Your task to perform on an android device: Add razer nari to the cart on amazon.com Image 0: 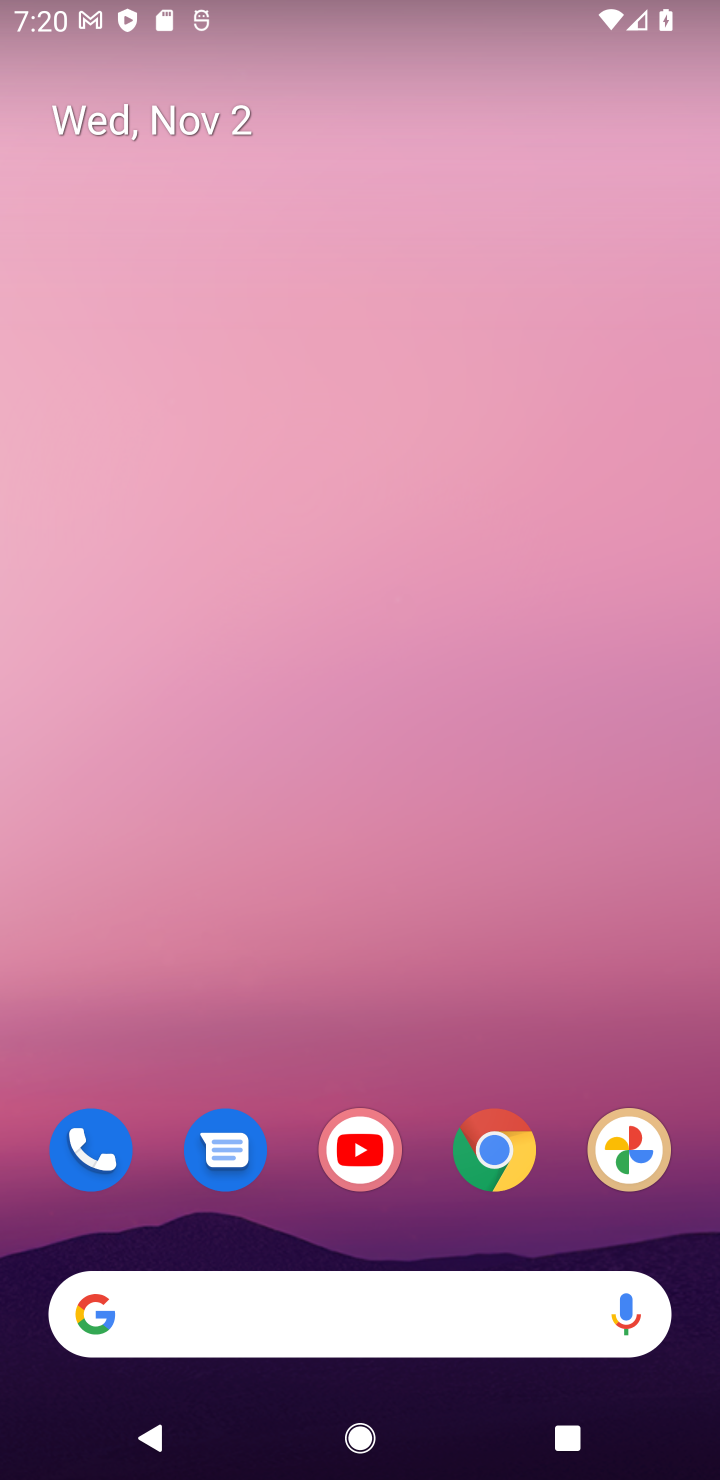
Step 0: click (482, 1160)
Your task to perform on an android device: Add razer nari to the cart on amazon.com Image 1: 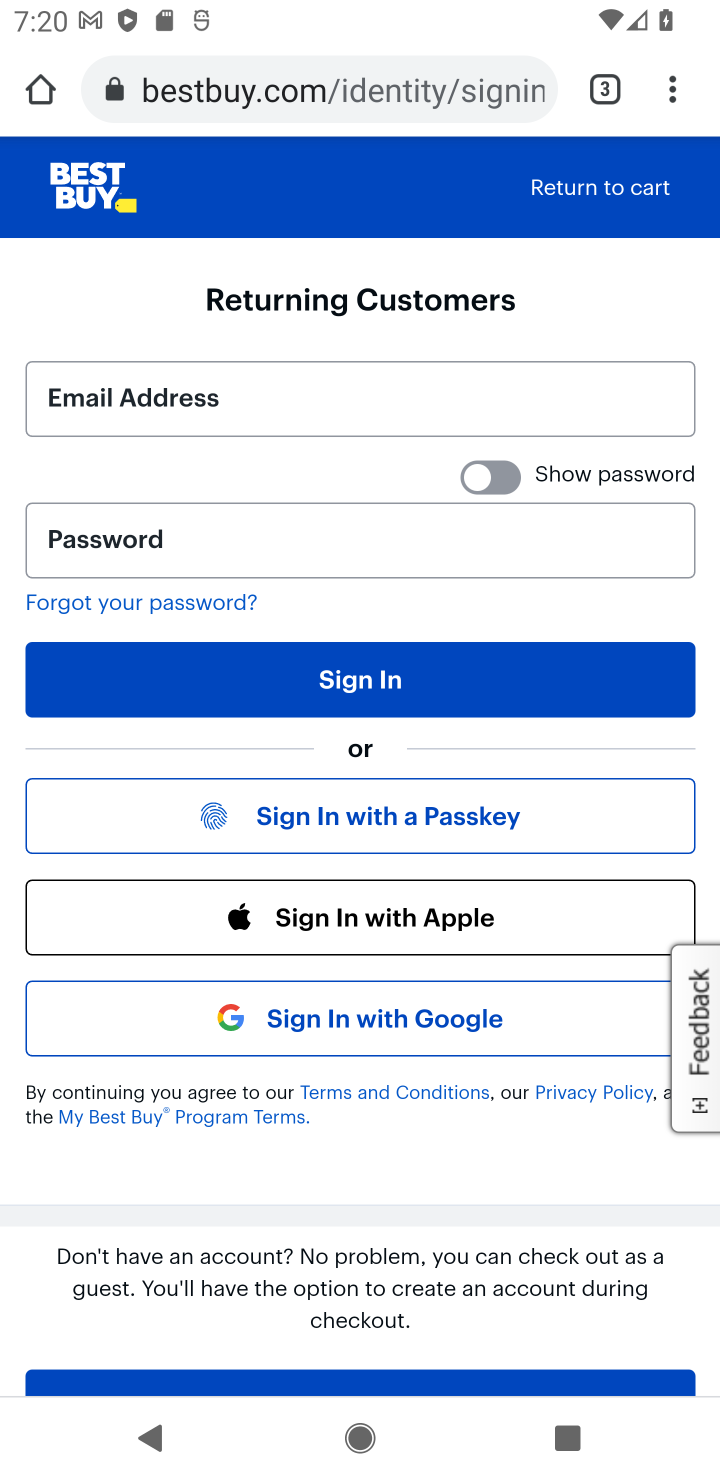
Step 1: click (603, 84)
Your task to perform on an android device: Add razer nari to the cart on amazon.com Image 2: 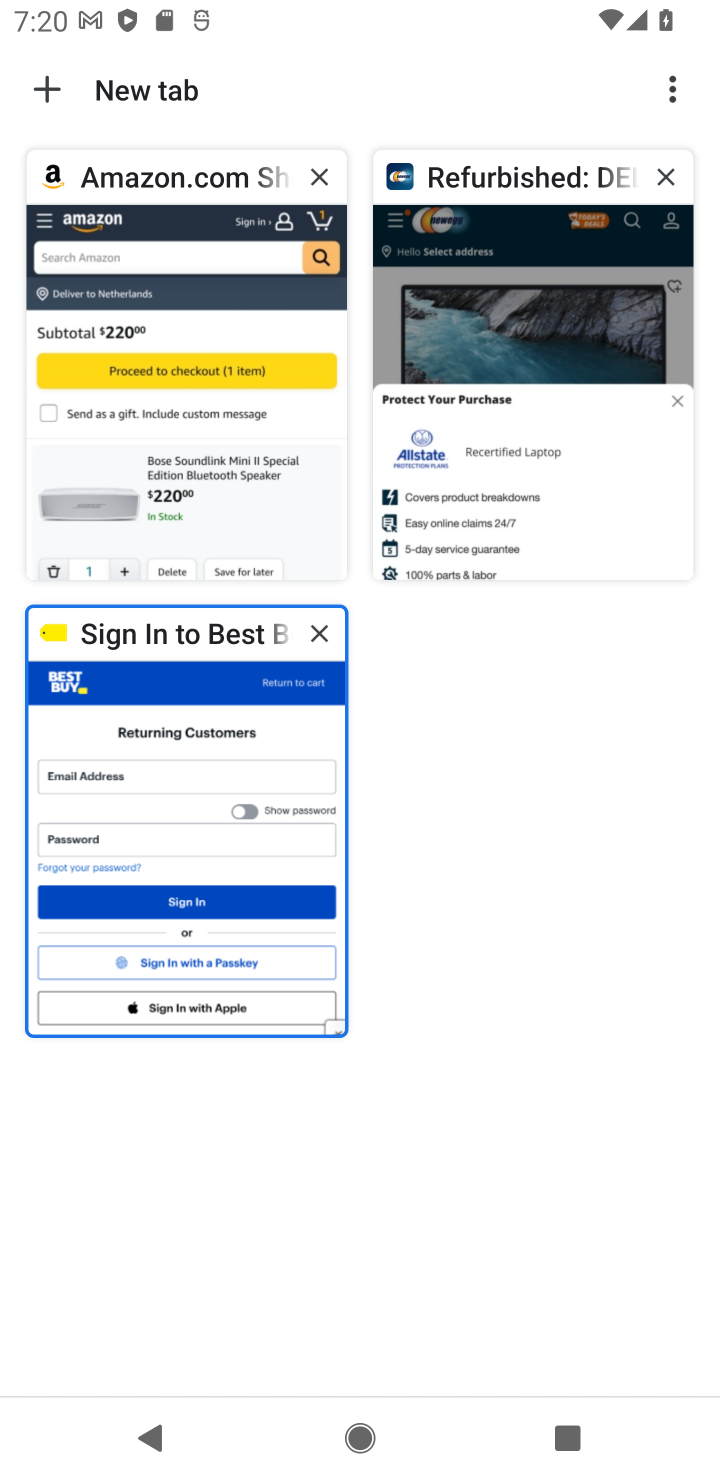
Step 2: click (162, 392)
Your task to perform on an android device: Add razer nari to the cart on amazon.com Image 3: 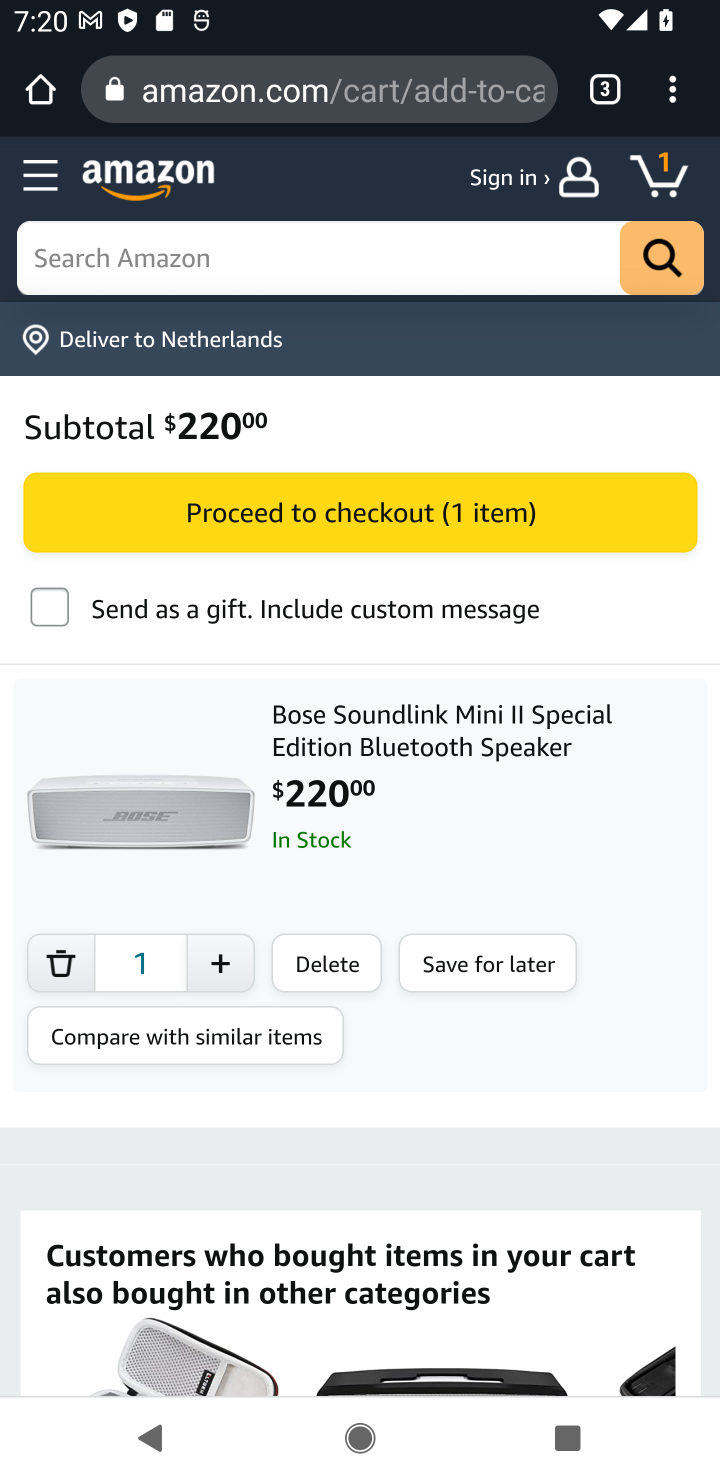
Step 3: click (283, 251)
Your task to perform on an android device: Add razer nari to the cart on amazon.com Image 4: 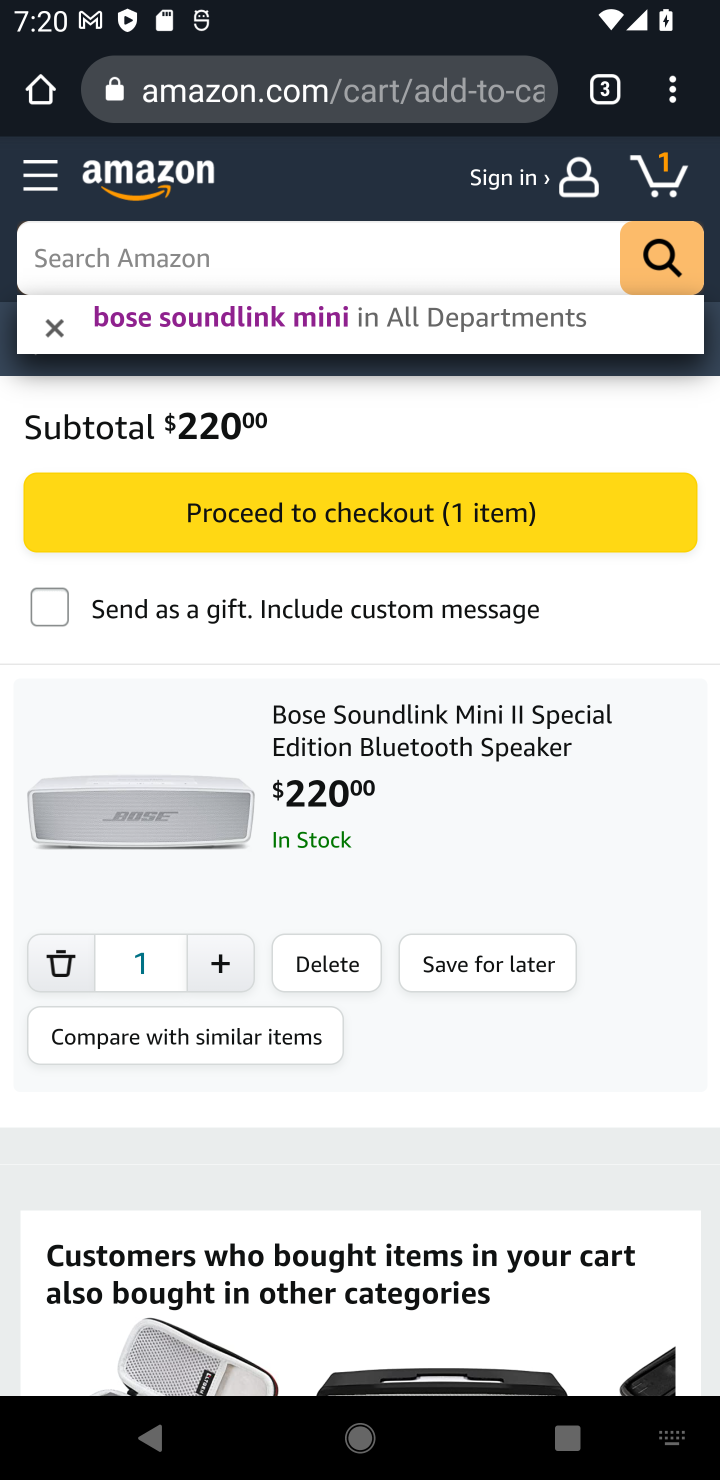
Step 4: type "razer nari "
Your task to perform on an android device: Add razer nari to the cart on amazon.com Image 5: 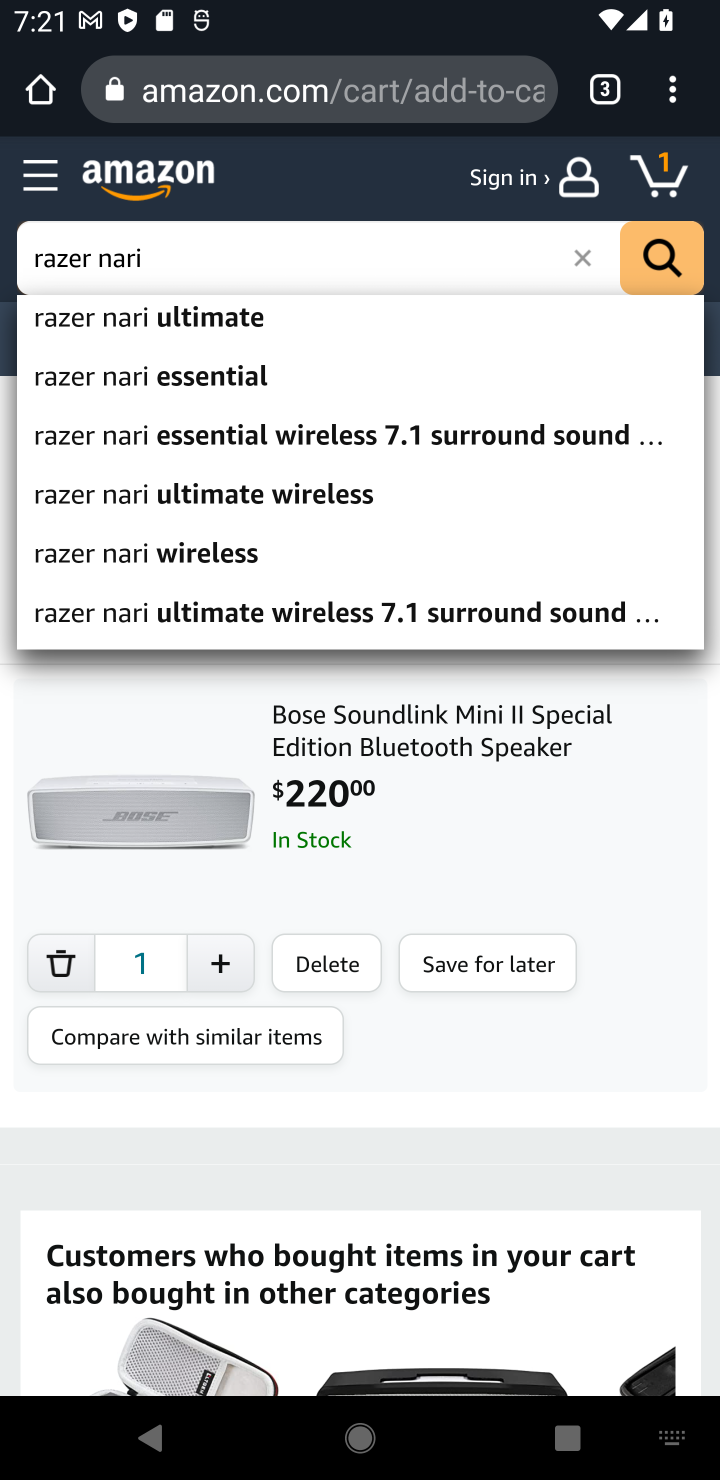
Step 5: click (213, 313)
Your task to perform on an android device: Add razer nari to the cart on amazon.com Image 6: 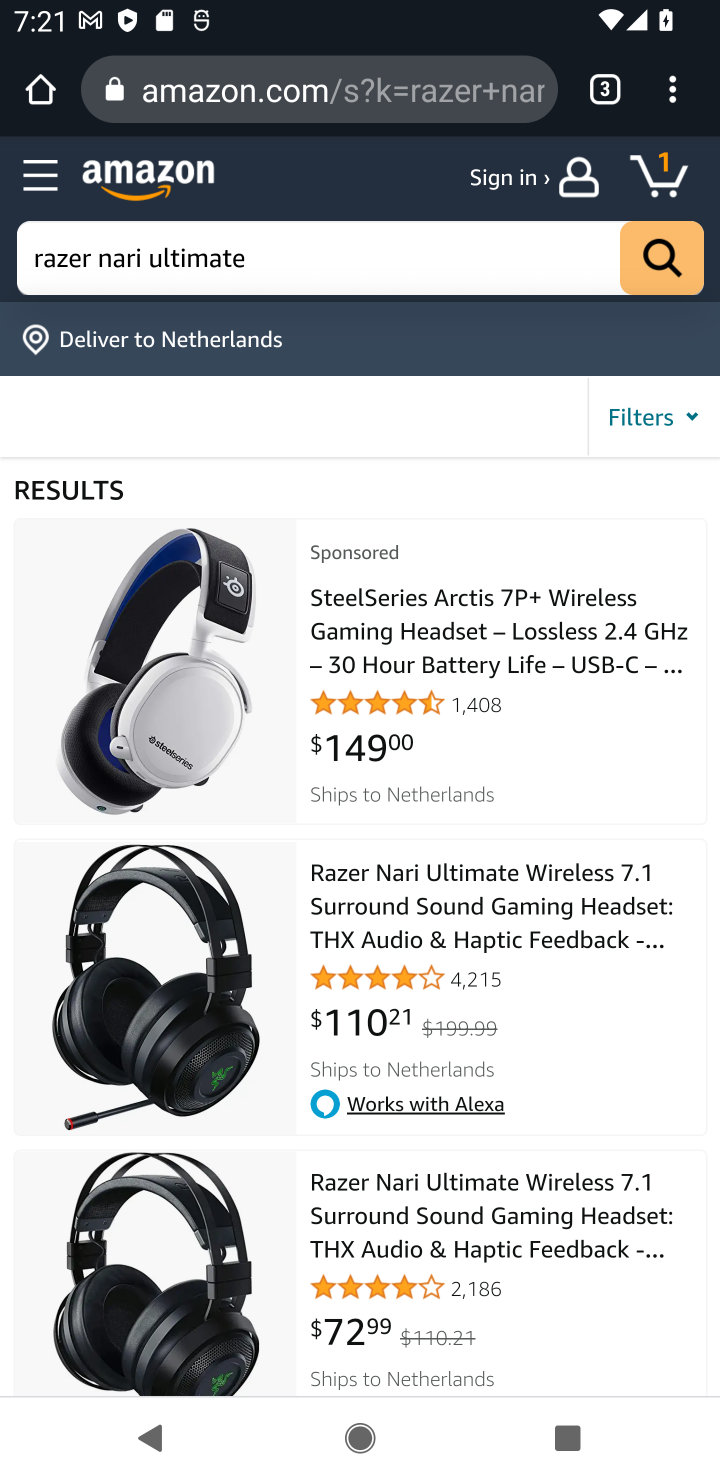
Step 6: click (554, 883)
Your task to perform on an android device: Add razer nari to the cart on amazon.com Image 7: 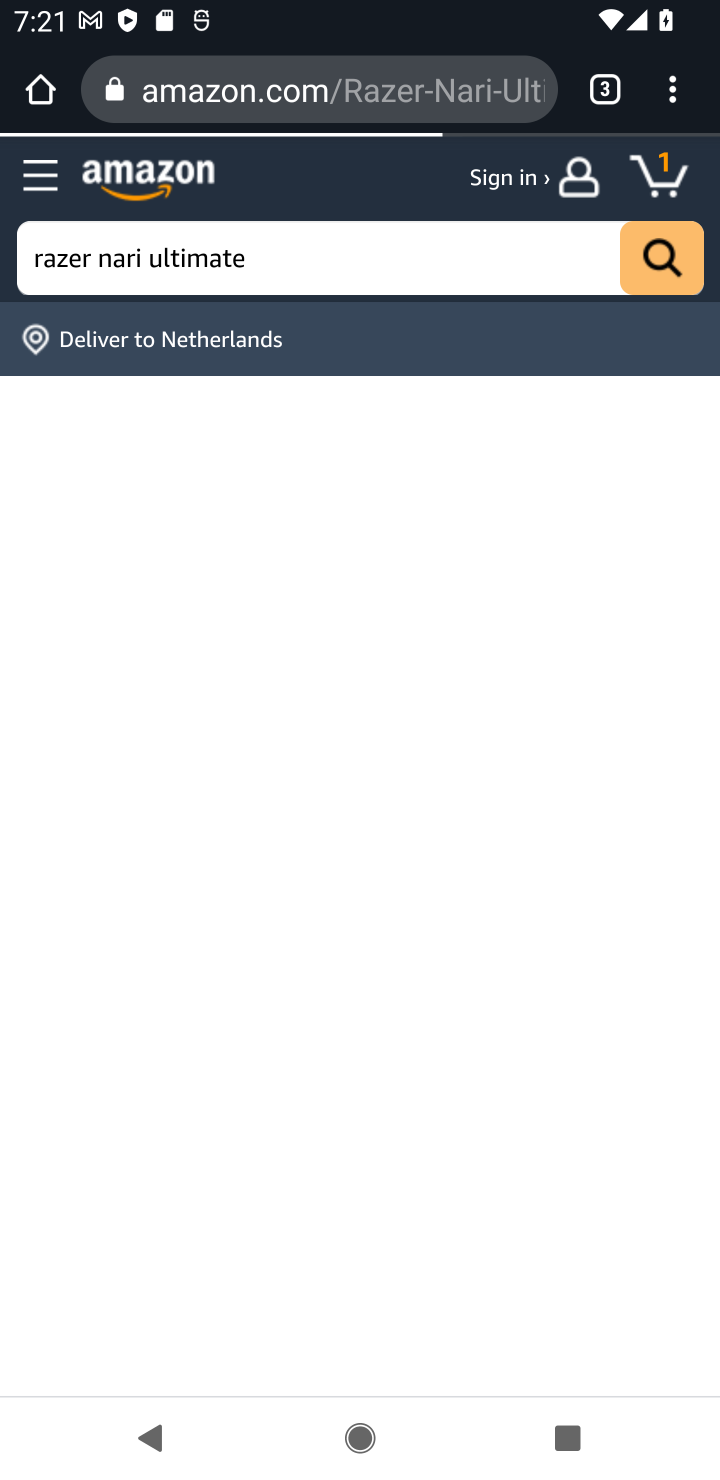
Step 7: click (554, 883)
Your task to perform on an android device: Add razer nari to the cart on amazon.com Image 8: 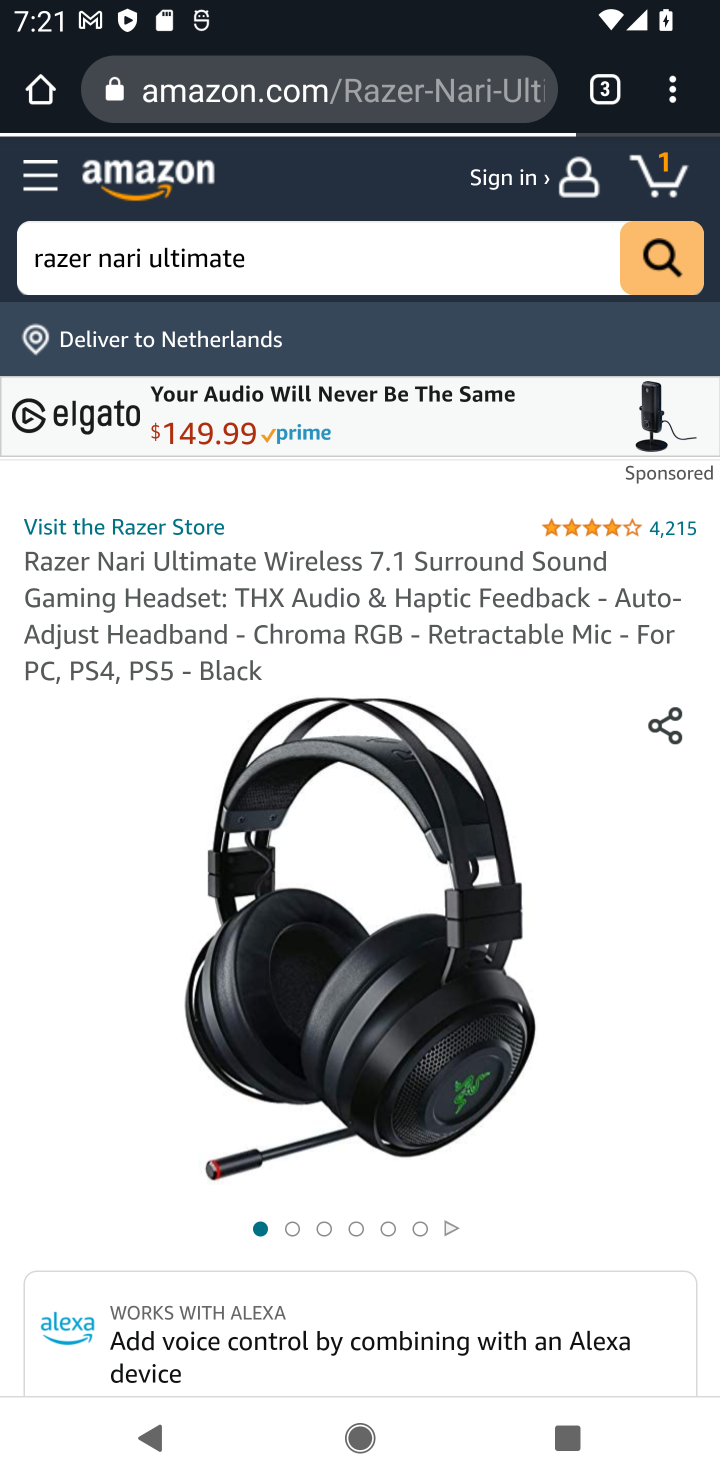
Step 8: drag from (269, 1132) to (442, 429)
Your task to perform on an android device: Add razer nari to the cart on amazon.com Image 9: 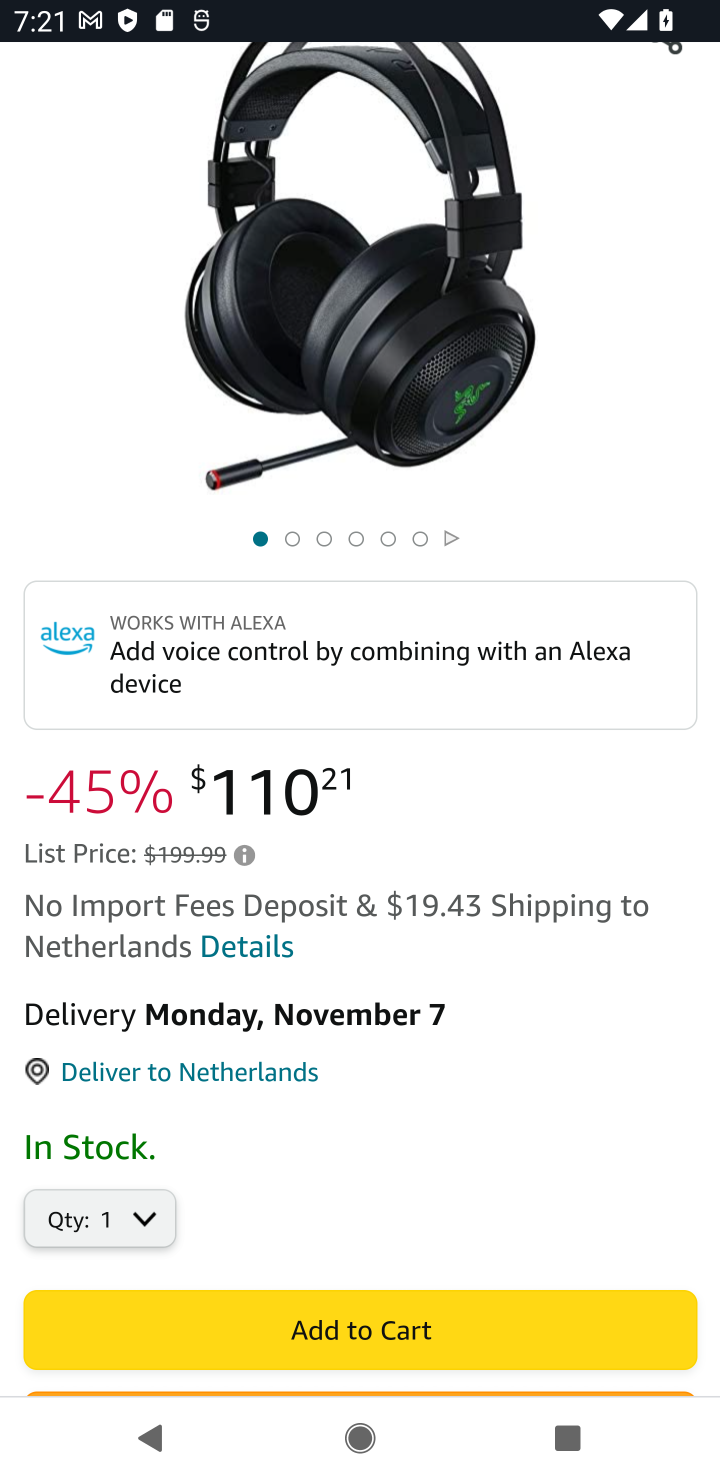
Step 9: click (419, 1326)
Your task to perform on an android device: Add razer nari to the cart on amazon.com Image 10: 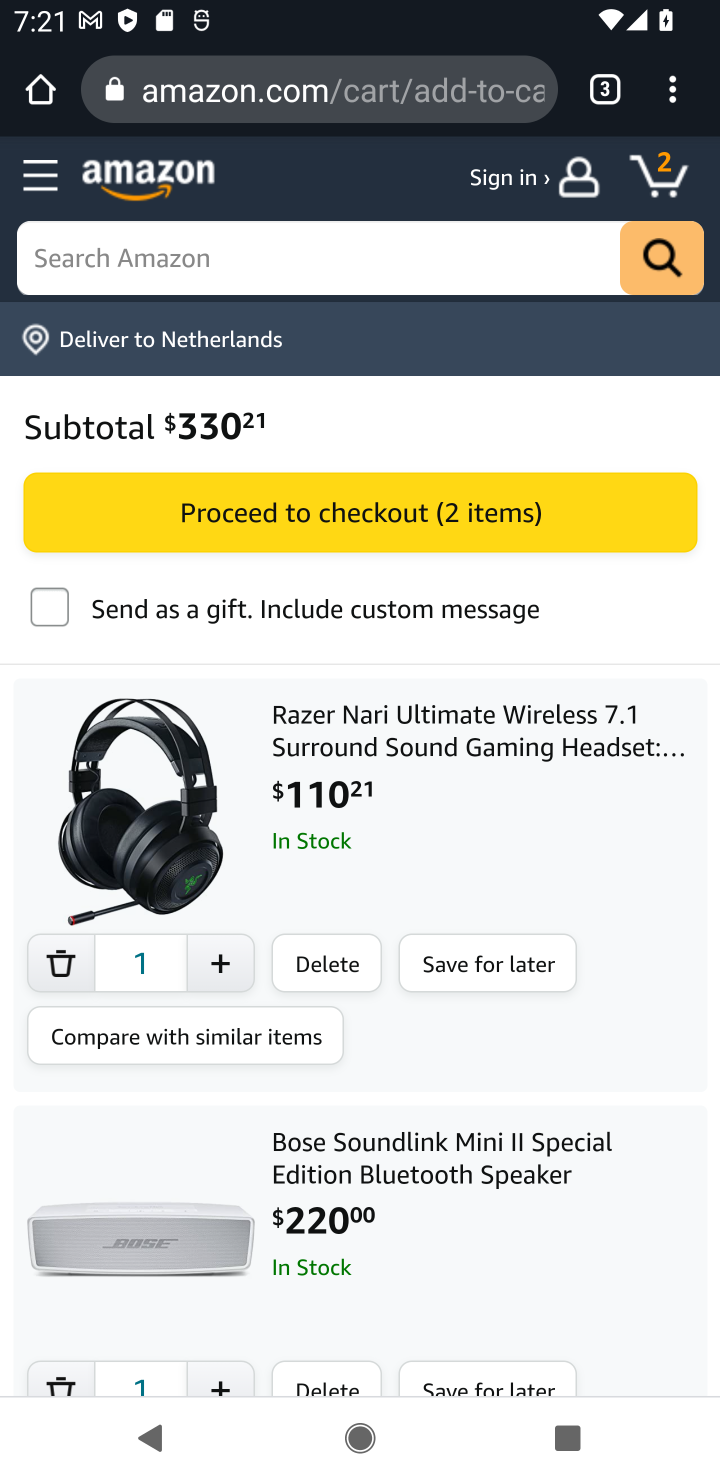
Step 10: task complete